Your task to perform on an android device: Add "razer kraken" to the cart on bestbuy, then select checkout. Image 0: 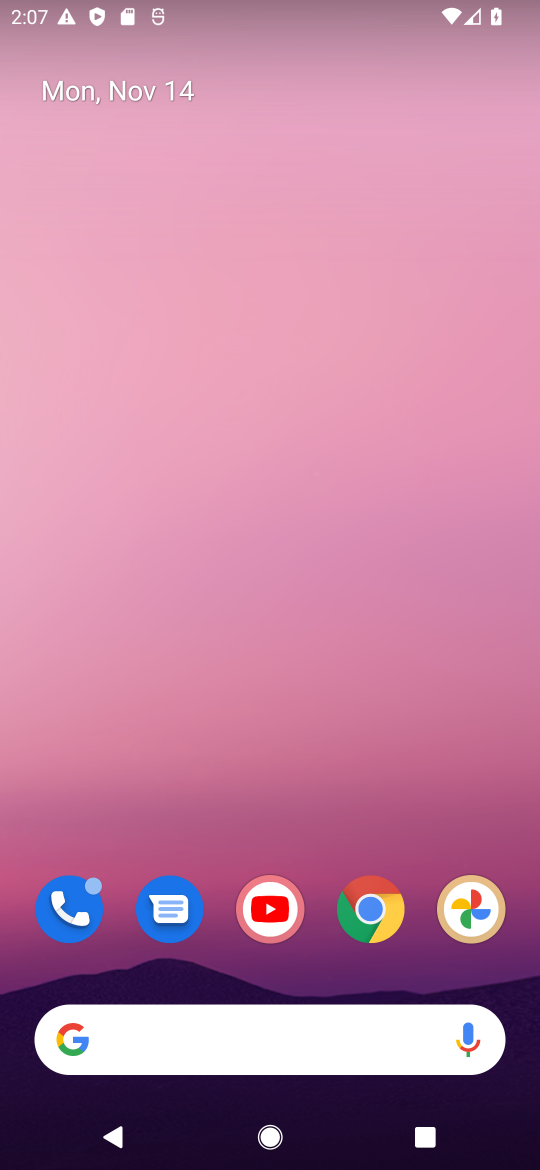
Step 0: drag from (318, 967) to (290, 30)
Your task to perform on an android device: Add "razer kraken" to the cart on bestbuy, then select checkout. Image 1: 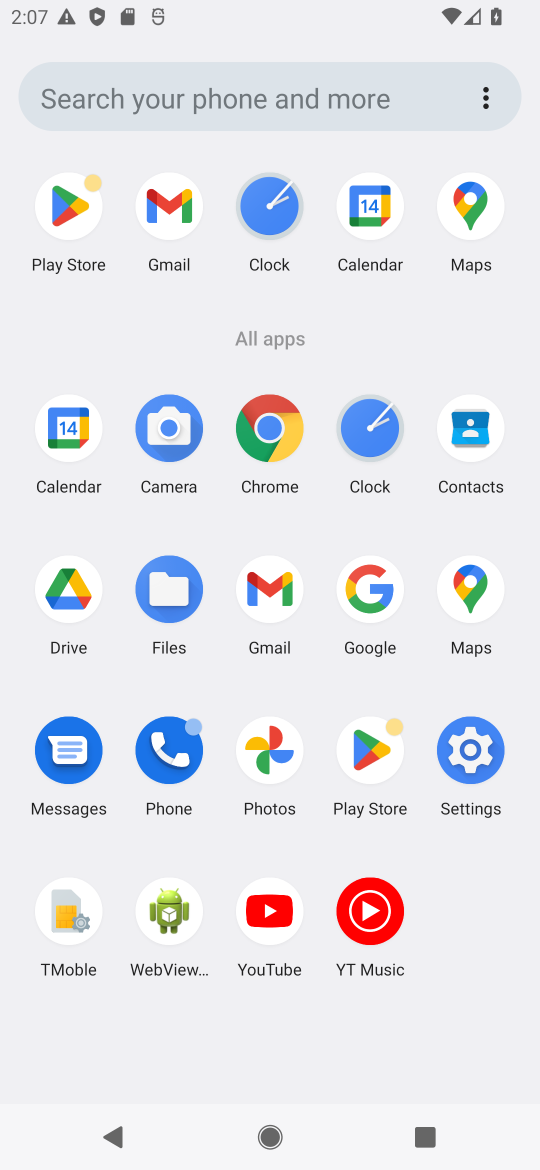
Step 1: click (274, 433)
Your task to perform on an android device: Add "razer kraken" to the cart on bestbuy, then select checkout. Image 2: 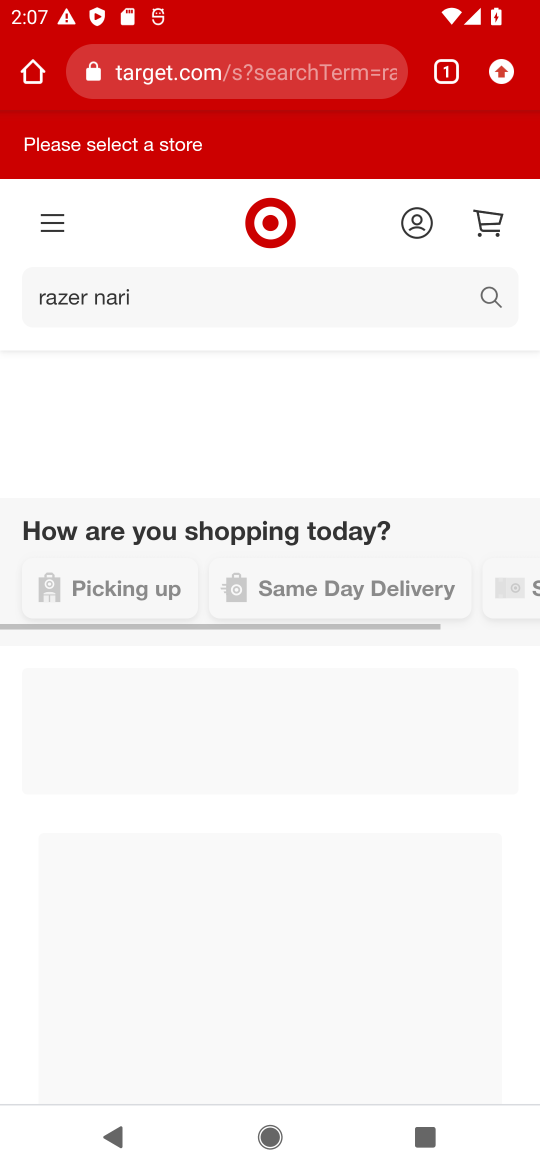
Step 2: click (249, 55)
Your task to perform on an android device: Add "razer kraken" to the cart on bestbuy, then select checkout. Image 3: 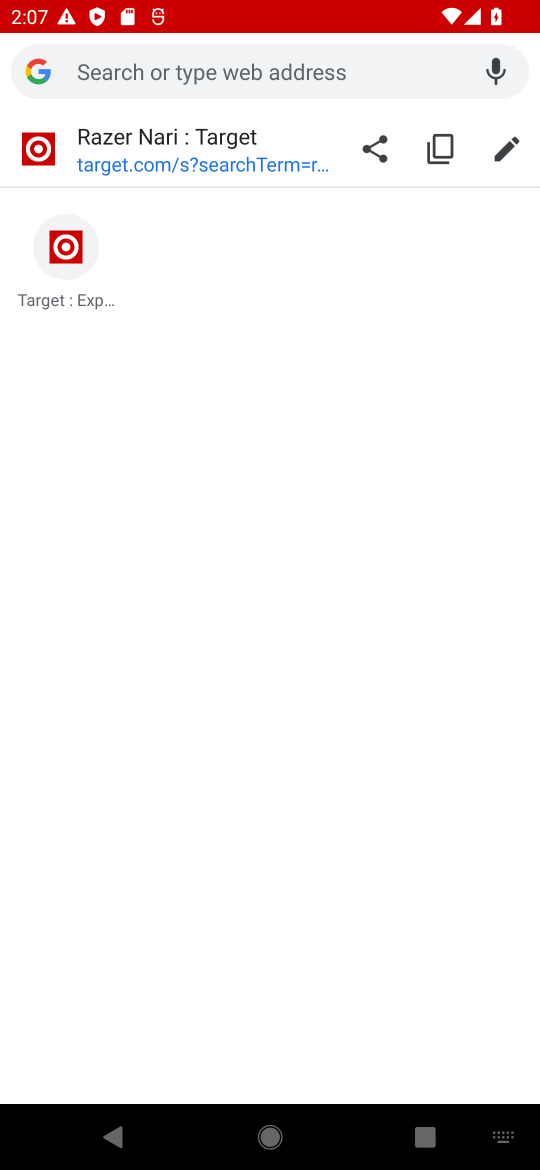
Step 3: type "bestbuy.com"
Your task to perform on an android device: Add "razer kraken" to the cart on bestbuy, then select checkout. Image 4: 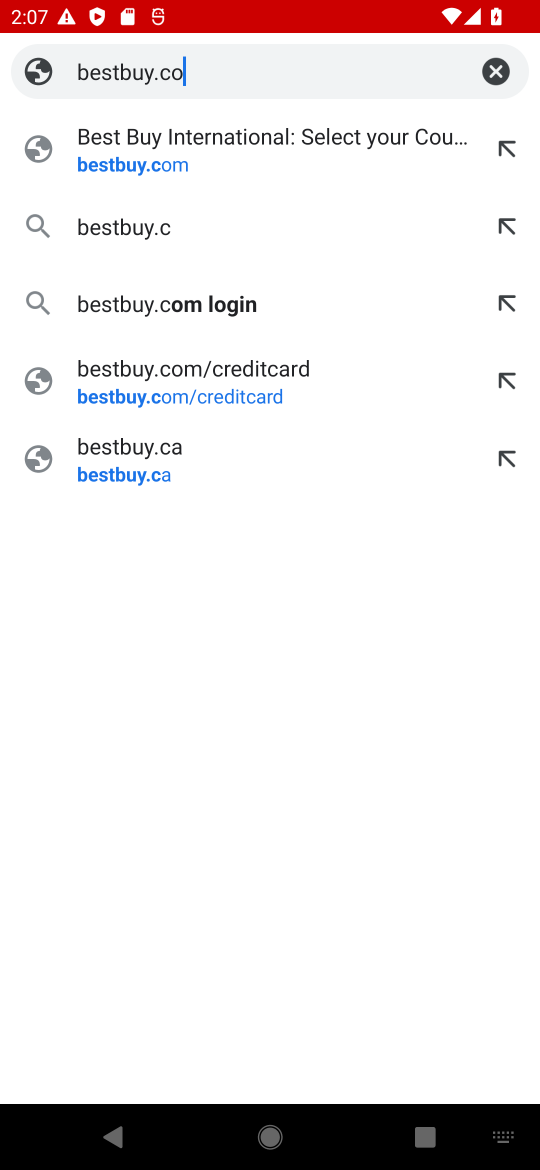
Step 4: press enter
Your task to perform on an android device: Add "razer kraken" to the cart on bestbuy, then select checkout. Image 5: 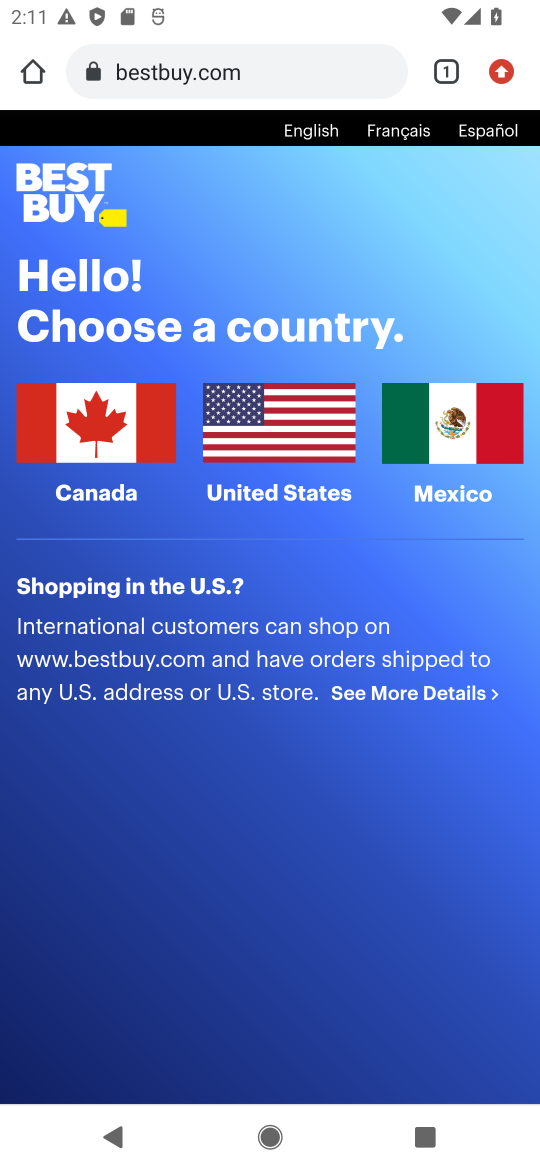
Step 5: click (117, 414)
Your task to perform on an android device: Add "razer kraken" to the cart on bestbuy, then select checkout. Image 6: 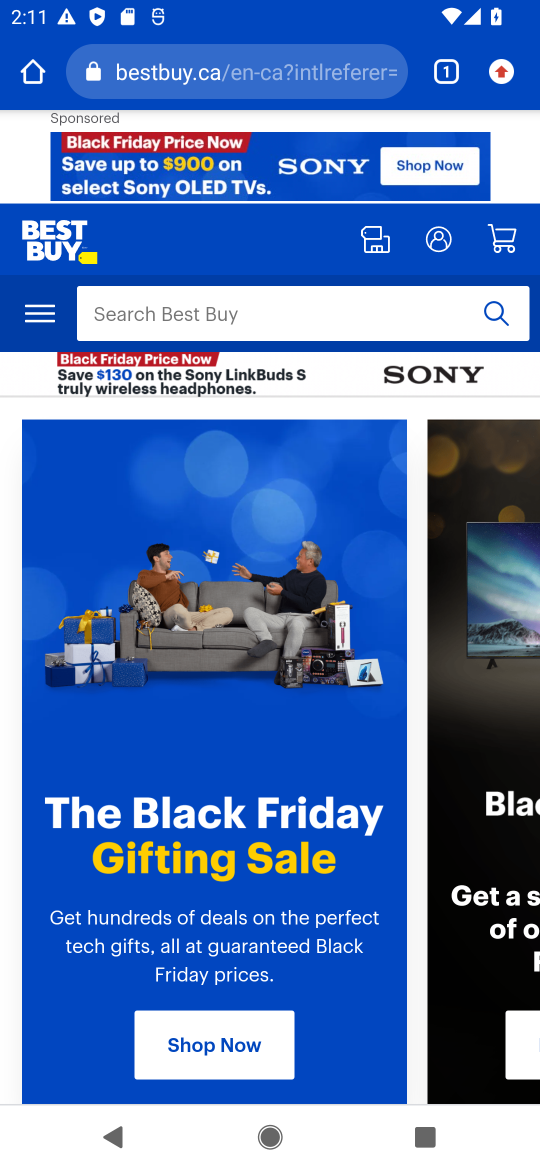
Step 6: click (393, 286)
Your task to perform on an android device: Add "razer kraken" to the cart on bestbuy, then select checkout. Image 7: 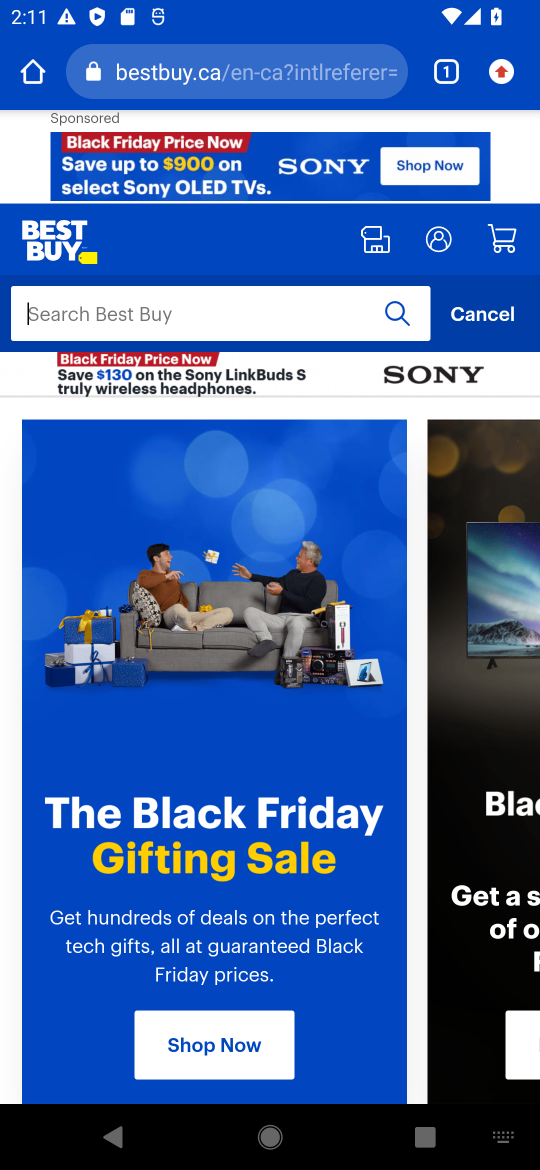
Step 7: type "razer kraken"
Your task to perform on an android device: Add "razer kraken" to the cart on bestbuy, then select checkout. Image 8: 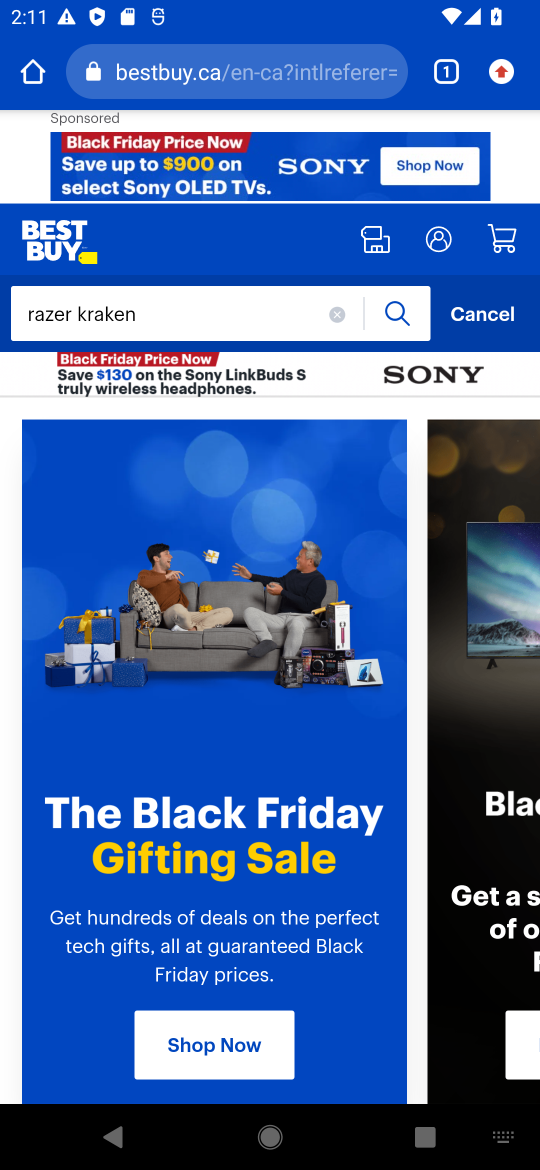
Step 8: press enter
Your task to perform on an android device: Add "razer kraken" to the cart on bestbuy, then select checkout. Image 9: 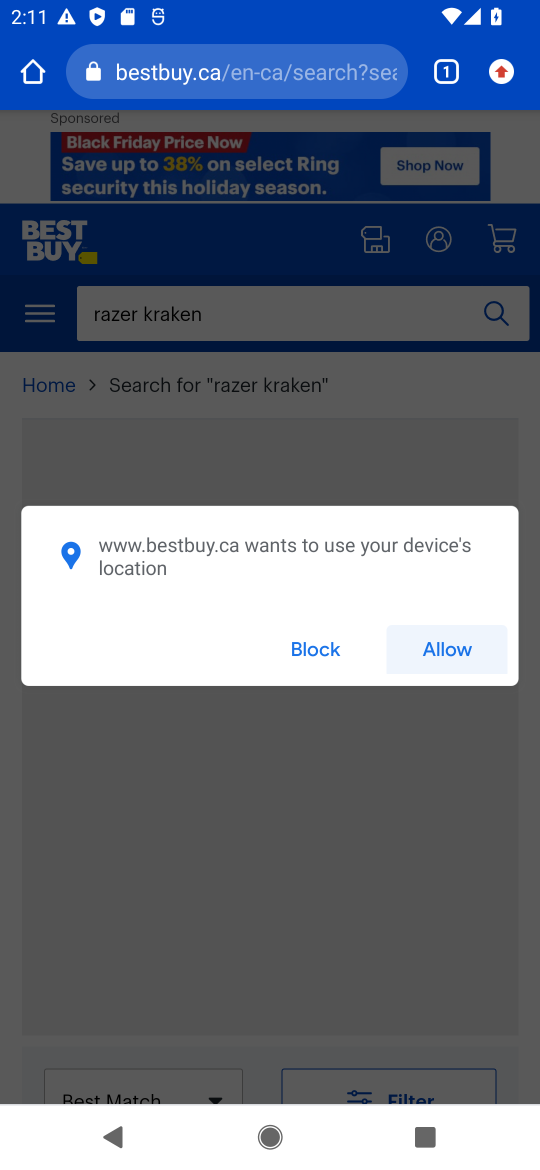
Step 9: click (299, 649)
Your task to perform on an android device: Add "razer kraken" to the cart on bestbuy, then select checkout. Image 10: 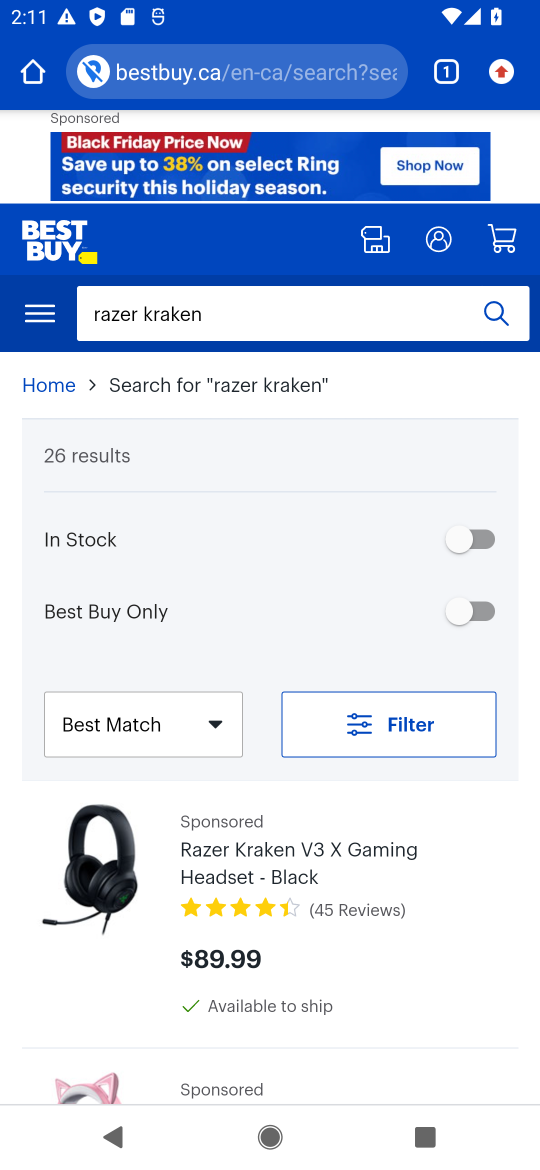
Step 10: drag from (359, 917) to (419, 237)
Your task to perform on an android device: Add "razer kraken" to the cart on bestbuy, then select checkout. Image 11: 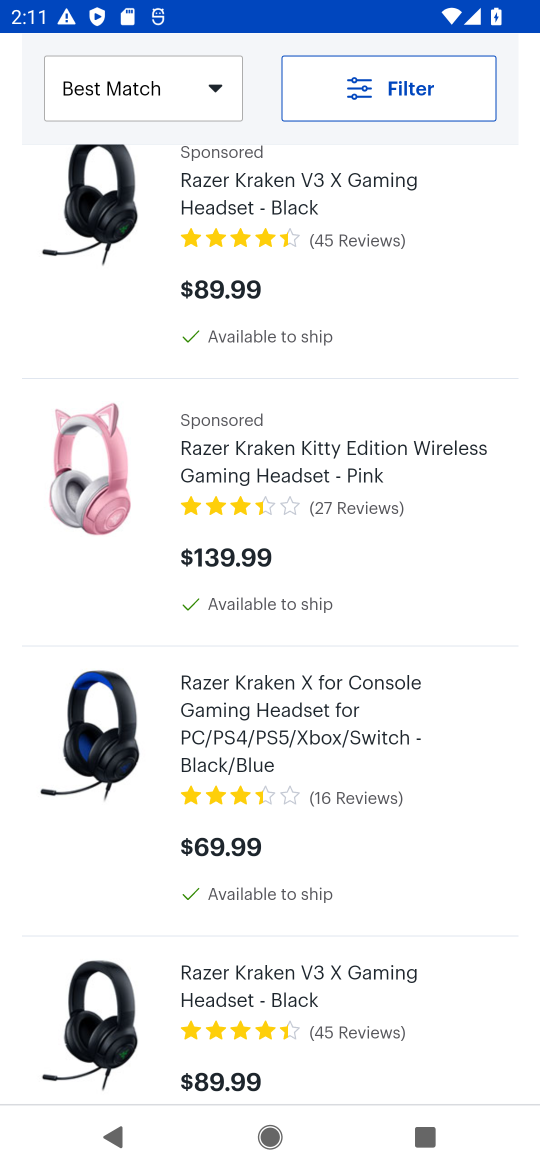
Step 11: click (282, 710)
Your task to perform on an android device: Add "razer kraken" to the cart on bestbuy, then select checkout. Image 12: 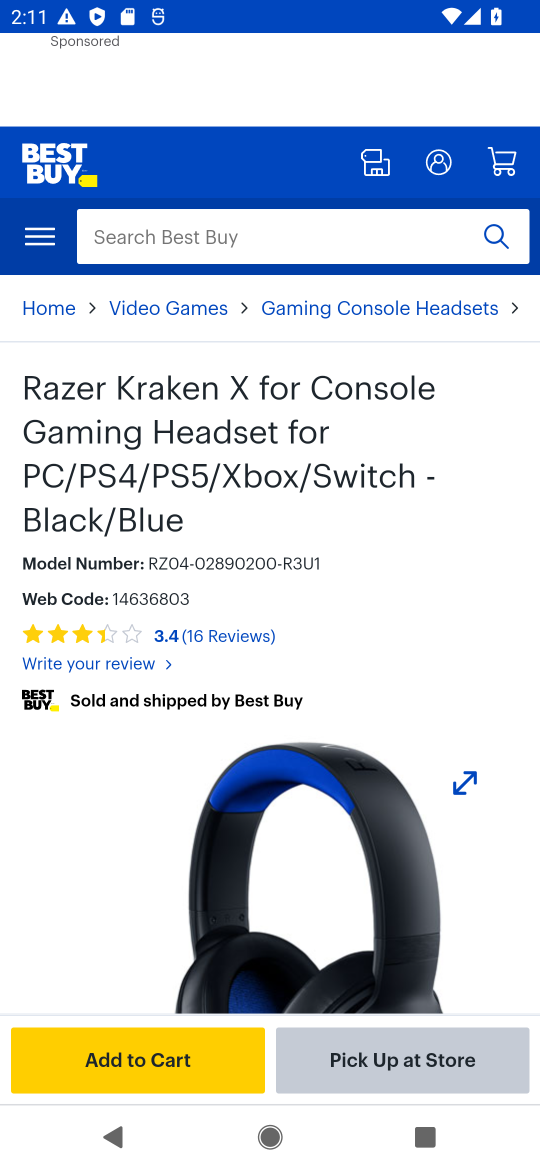
Step 12: drag from (420, 838) to (388, 280)
Your task to perform on an android device: Add "razer kraken" to the cart on bestbuy, then select checkout. Image 13: 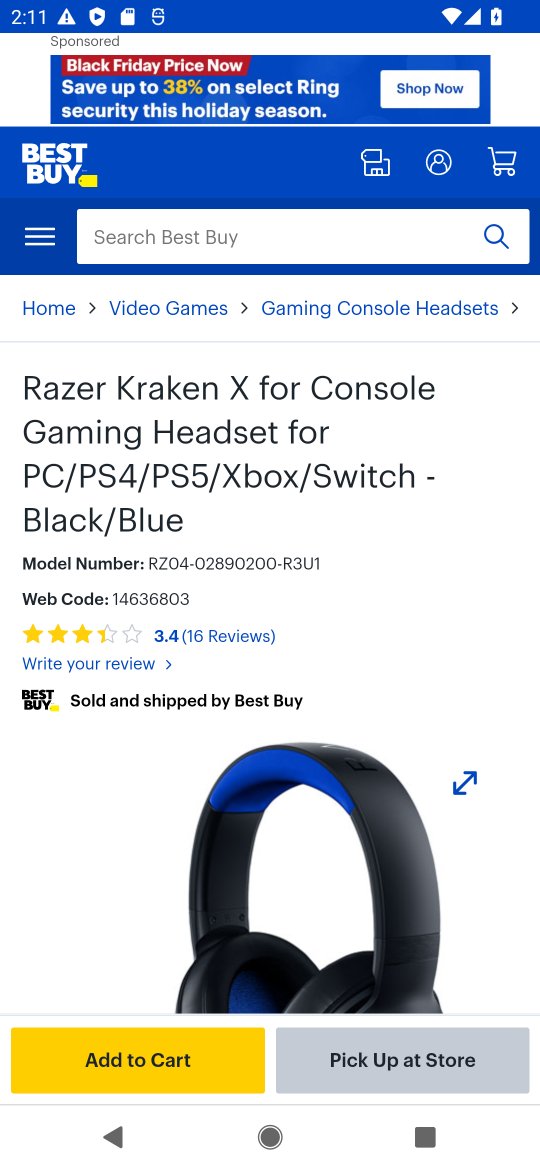
Step 13: click (130, 1059)
Your task to perform on an android device: Add "razer kraken" to the cart on bestbuy, then select checkout. Image 14: 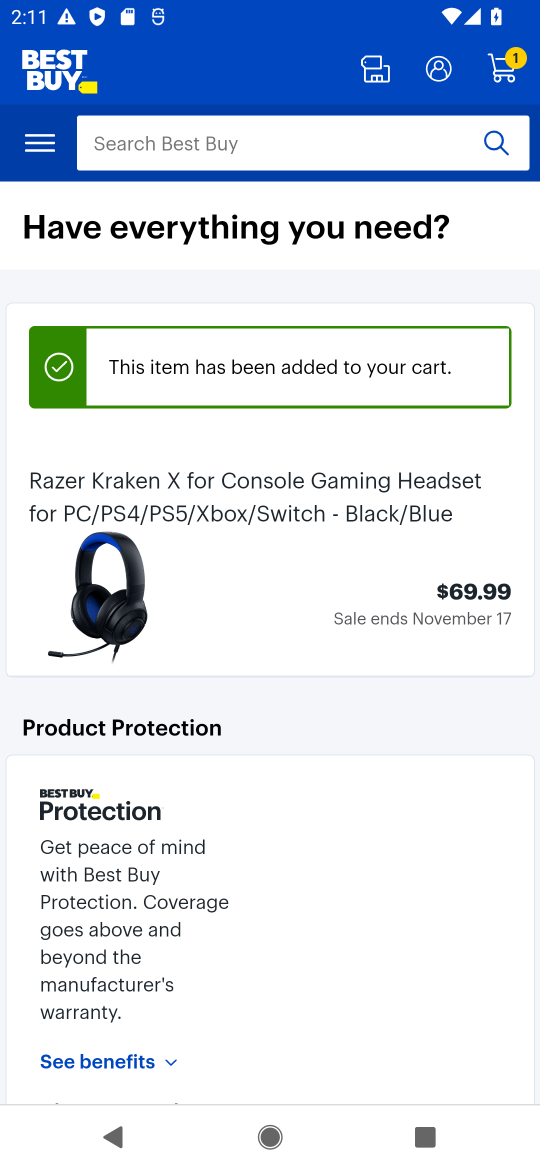
Step 14: task complete